Your task to perform on an android device: Go to internet settings Image 0: 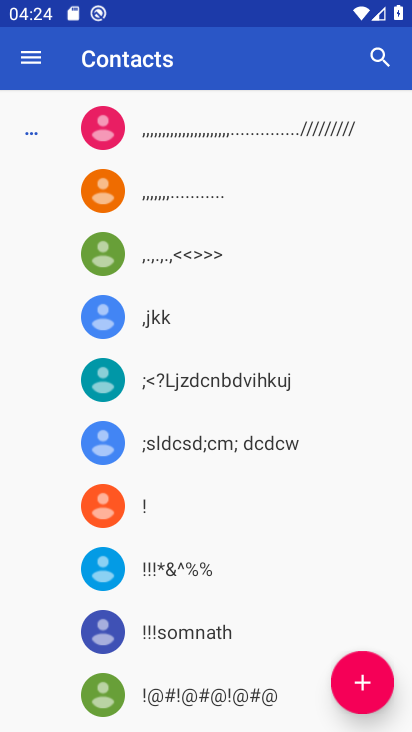
Step 0: drag from (293, 11) to (224, 631)
Your task to perform on an android device: Go to internet settings Image 1: 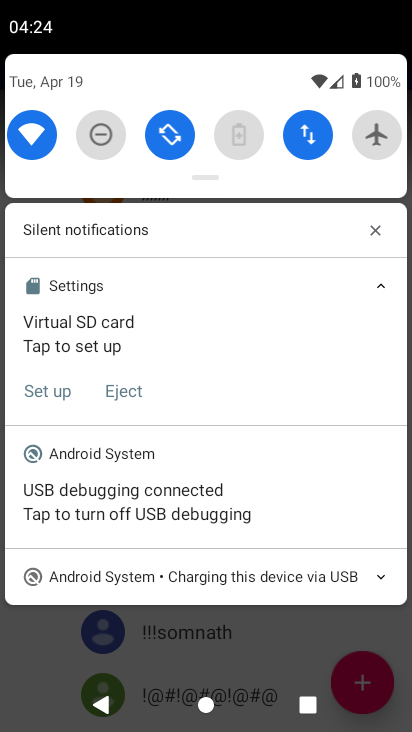
Step 1: drag from (154, 80) to (217, 514)
Your task to perform on an android device: Go to internet settings Image 2: 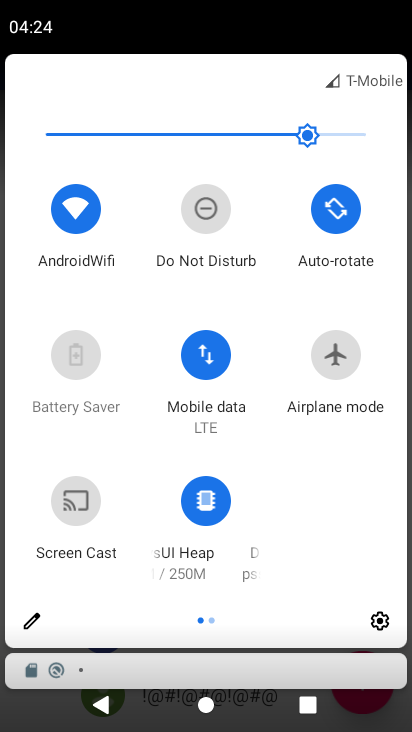
Step 2: click (390, 611)
Your task to perform on an android device: Go to internet settings Image 3: 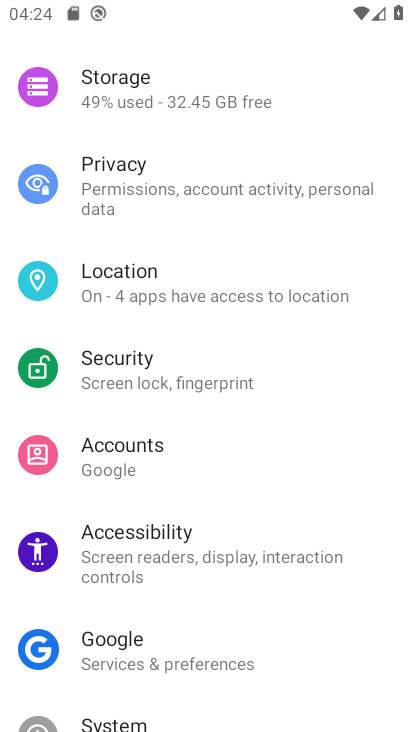
Step 3: drag from (217, 124) to (140, 631)
Your task to perform on an android device: Go to internet settings Image 4: 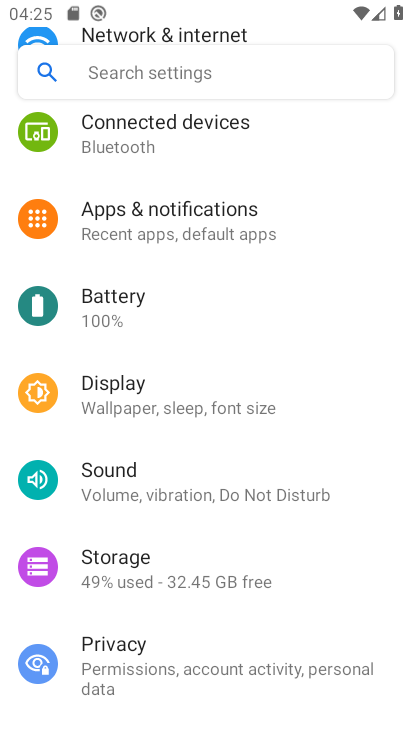
Step 4: drag from (194, 162) to (124, 618)
Your task to perform on an android device: Go to internet settings Image 5: 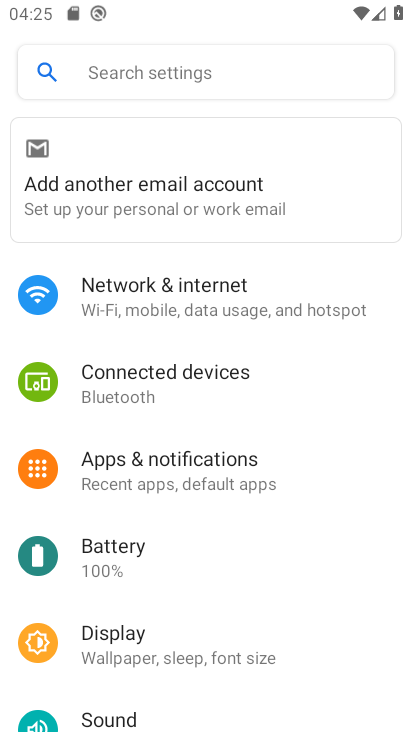
Step 5: click (173, 306)
Your task to perform on an android device: Go to internet settings Image 6: 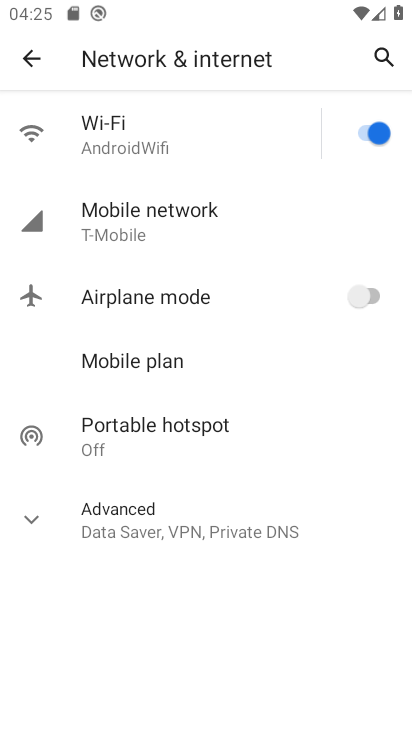
Step 6: click (190, 209)
Your task to perform on an android device: Go to internet settings Image 7: 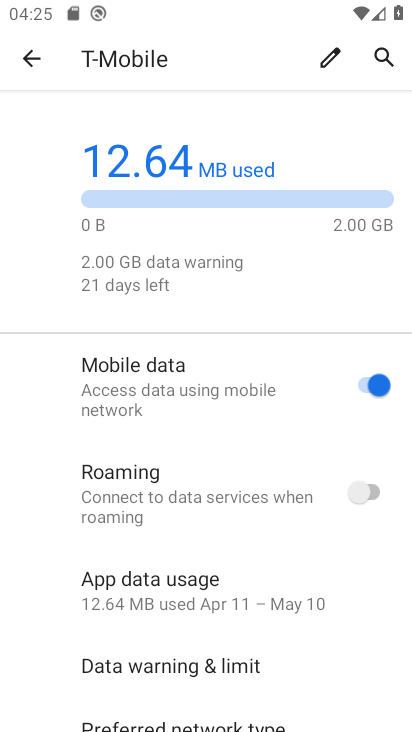
Step 7: task complete